Your task to perform on an android device: toggle translation in the chrome app Image 0: 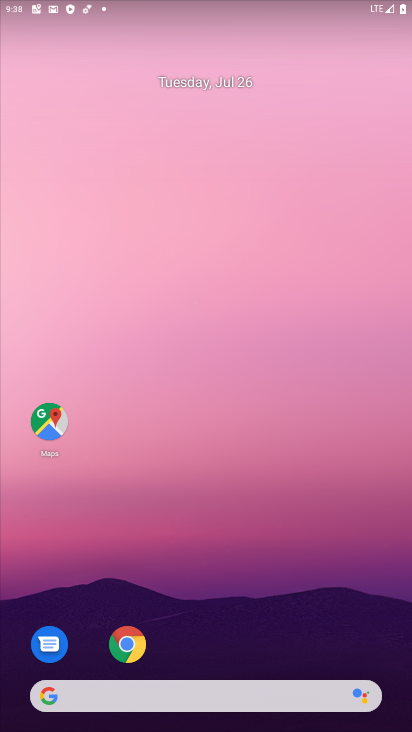
Step 0: click (129, 647)
Your task to perform on an android device: toggle translation in the chrome app Image 1: 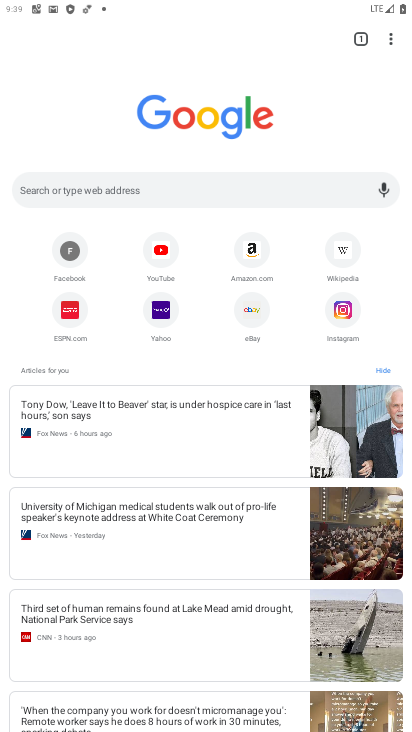
Step 1: drag from (394, 35) to (256, 322)
Your task to perform on an android device: toggle translation in the chrome app Image 2: 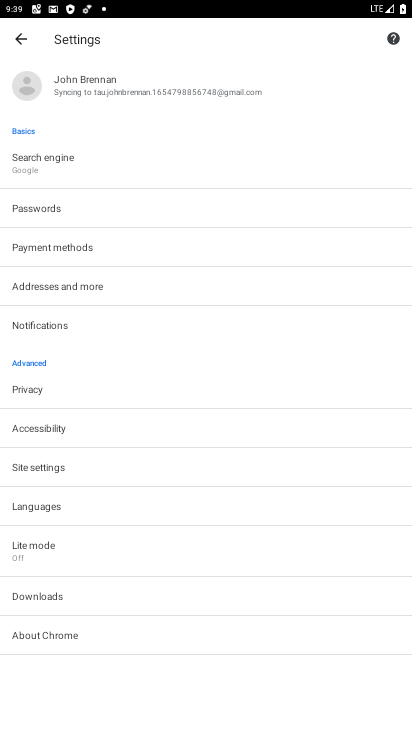
Step 2: click (58, 515)
Your task to perform on an android device: toggle translation in the chrome app Image 3: 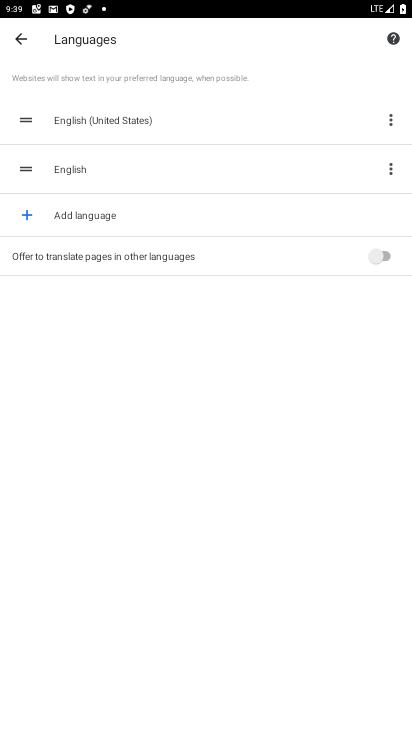
Step 3: click (394, 259)
Your task to perform on an android device: toggle translation in the chrome app Image 4: 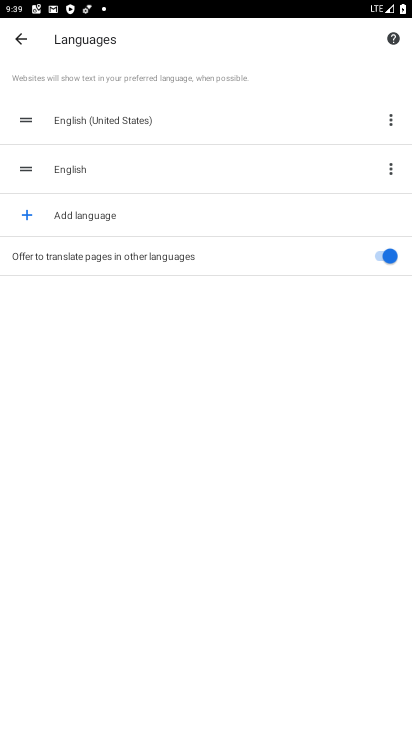
Step 4: task complete